Your task to perform on an android device: open the mobile data screen to see how much data has been used Image 0: 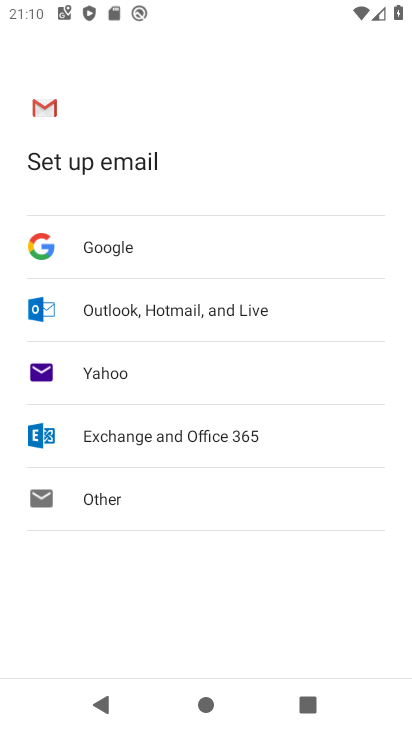
Step 0: press home button
Your task to perform on an android device: open the mobile data screen to see how much data has been used Image 1: 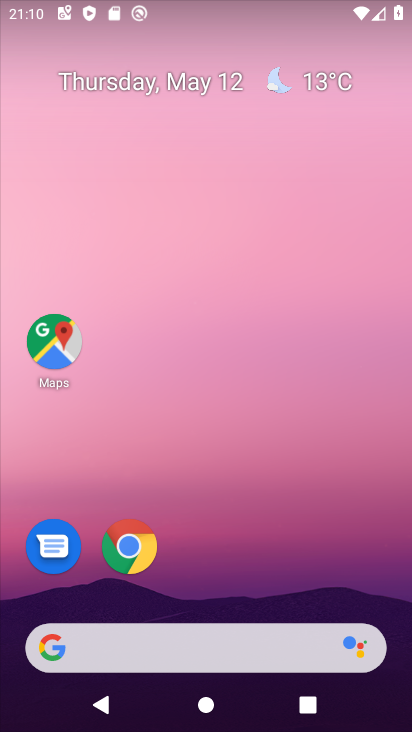
Step 1: drag from (282, 0) to (264, 526)
Your task to perform on an android device: open the mobile data screen to see how much data has been used Image 2: 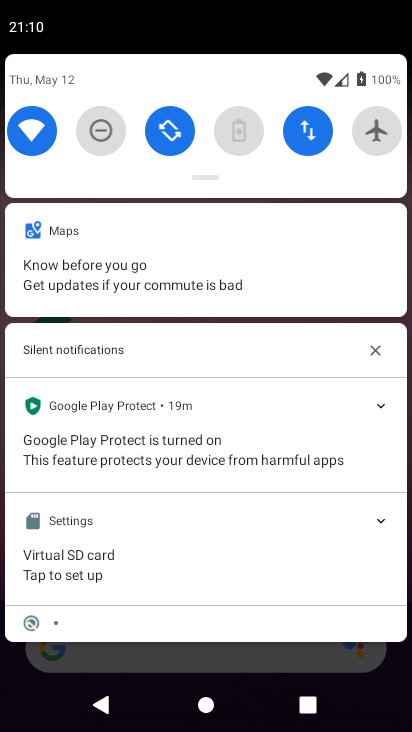
Step 2: drag from (269, 157) to (235, 573)
Your task to perform on an android device: open the mobile data screen to see how much data has been used Image 3: 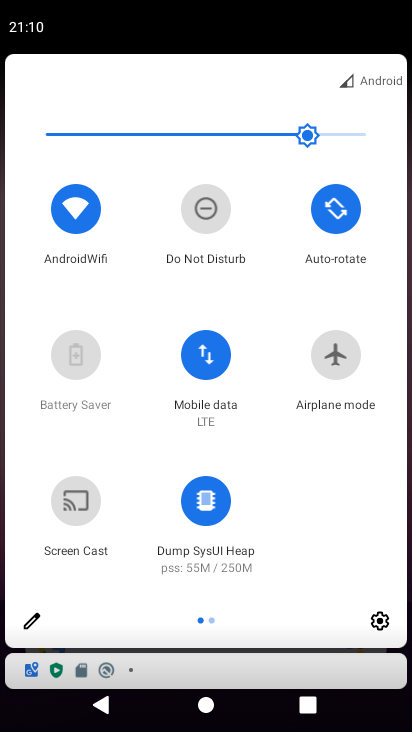
Step 3: click (195, 354)
Your task to perform on an android device: open the mobile data screen to see how much data has been used Image 4: 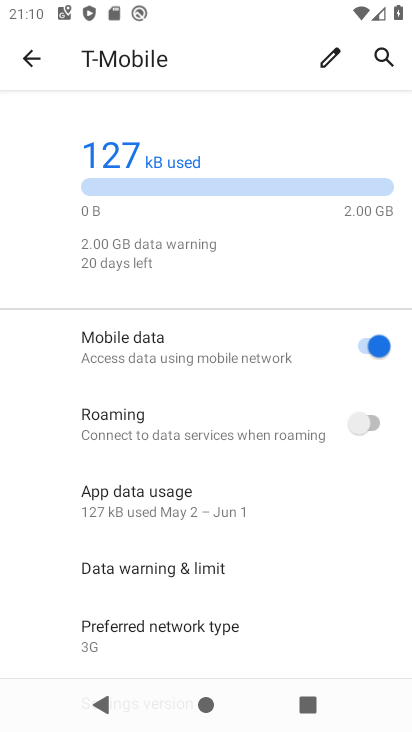
Step 4: task complete